Your task to perform on an android device: Search for bose soundlink mini on bestbuy, select the first entry, add it to the cart, then select checkout. Image 0: 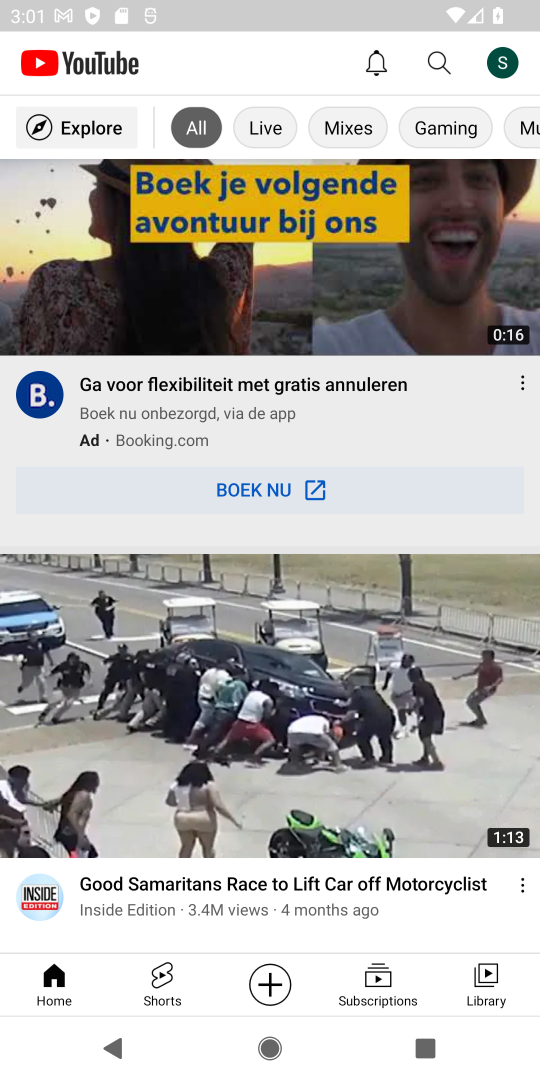
Step 0: press home button
Your task to perform on an android device: Search for bose soundlink mini on bestbuy, select the first entry, add it to the cart, then select checkout. Image 1: 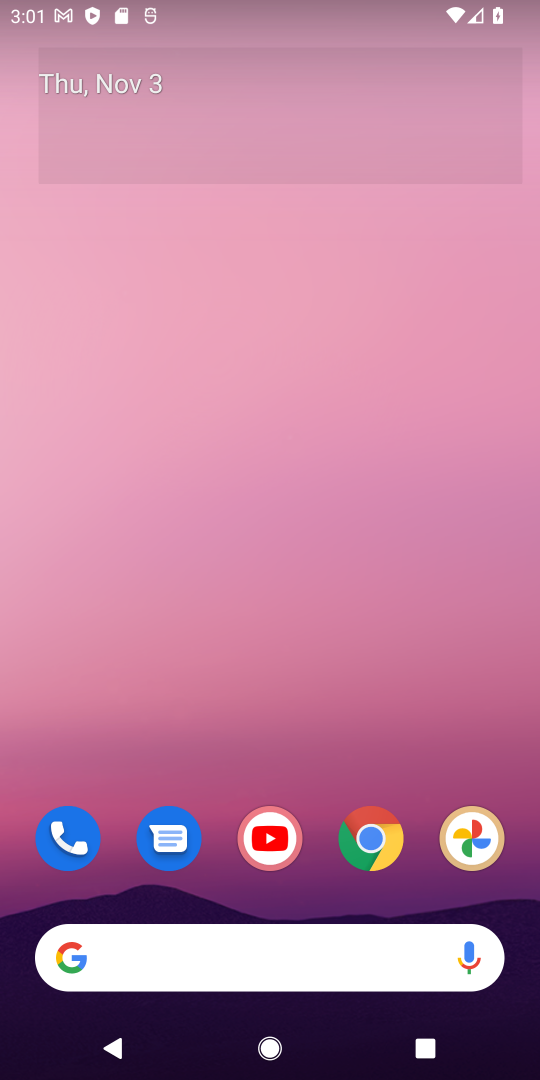
Step 1: drag from (306, 908) to (278, 207)
Your task to perform on an android device: Search for bose soundlink mini on bestbuy, select the first entry, add it to the cart, then select checkout. Image 2: 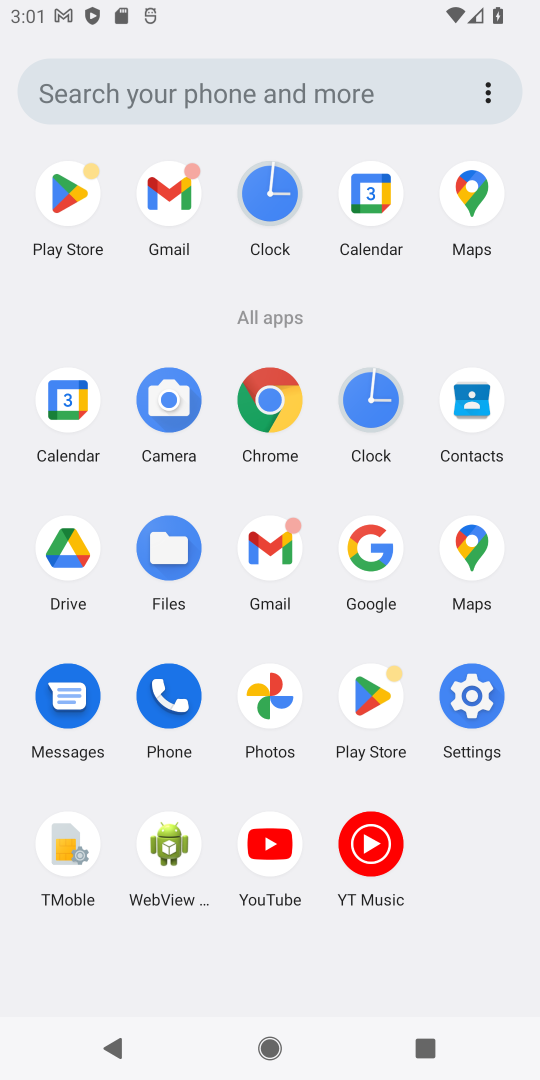
Step 2: click (269, 399)
Your task to perform on an android device: Search for bose soundlink mini on bestbuy, select the first entry, add it to the cart, then select checkout. Image 3: 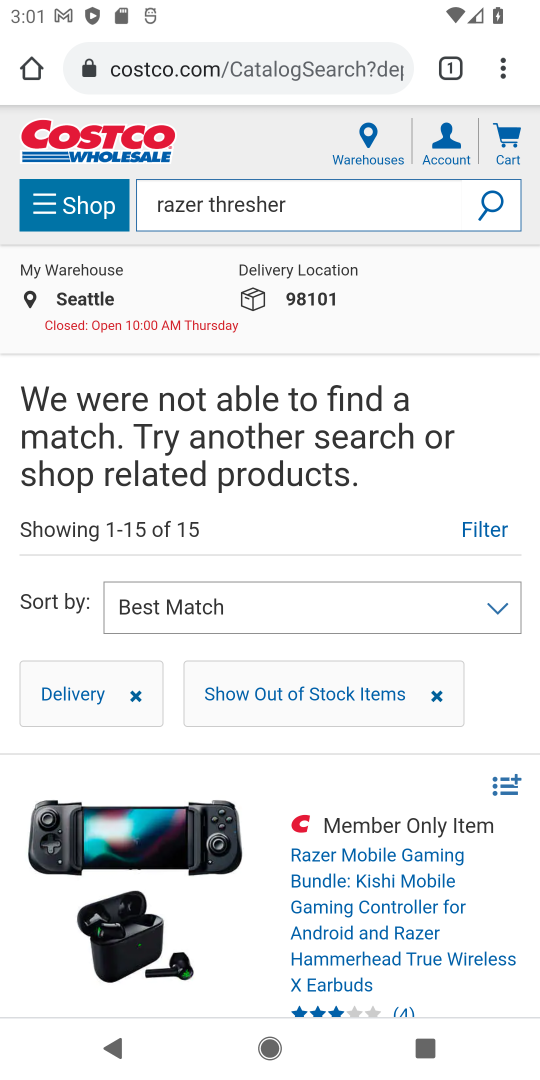
Step 3: click (273, 81)
Your task to perform on an android device: Search for bose soundlink mini on bestbuy, select the first entry, add it to the cart, then select checkout. Image 4: 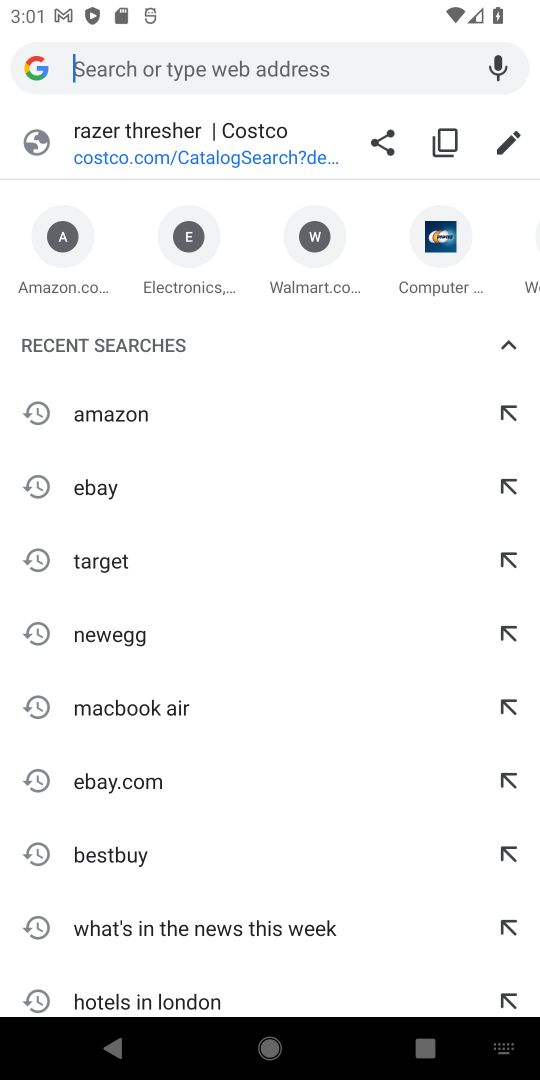
Step 4: type "bestbuy.com"
Your task to perform on an android device: Search for bose soundlink mini on bestbuy, select the first entry, add it to the cart, then select checkout. Image 5: 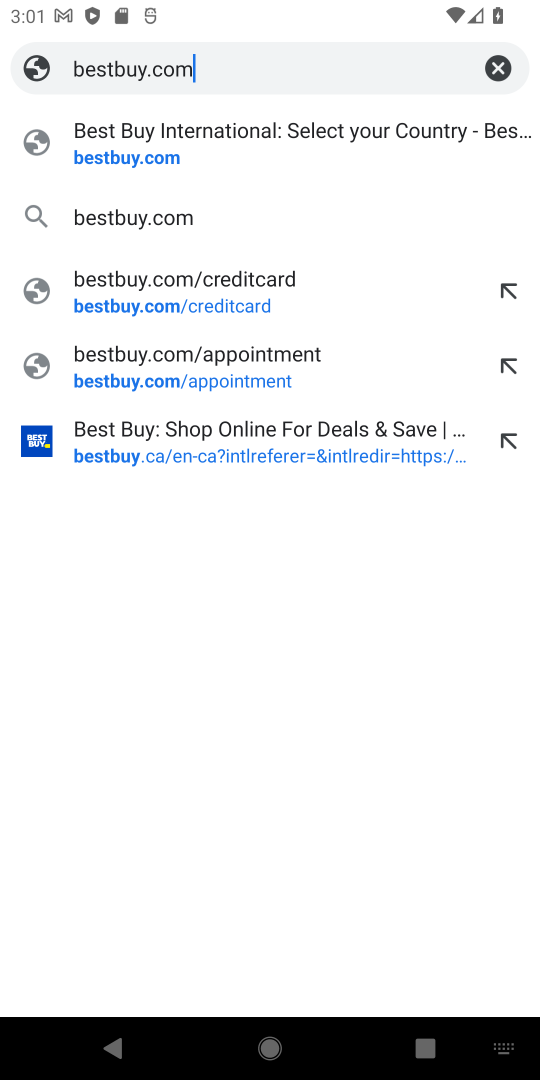
Step 5: press enter
Your task to perform on an android device: Search for bose soundlink mini on bestbuy, select the first entry, add it to the cart, then select checkout. Image 6: 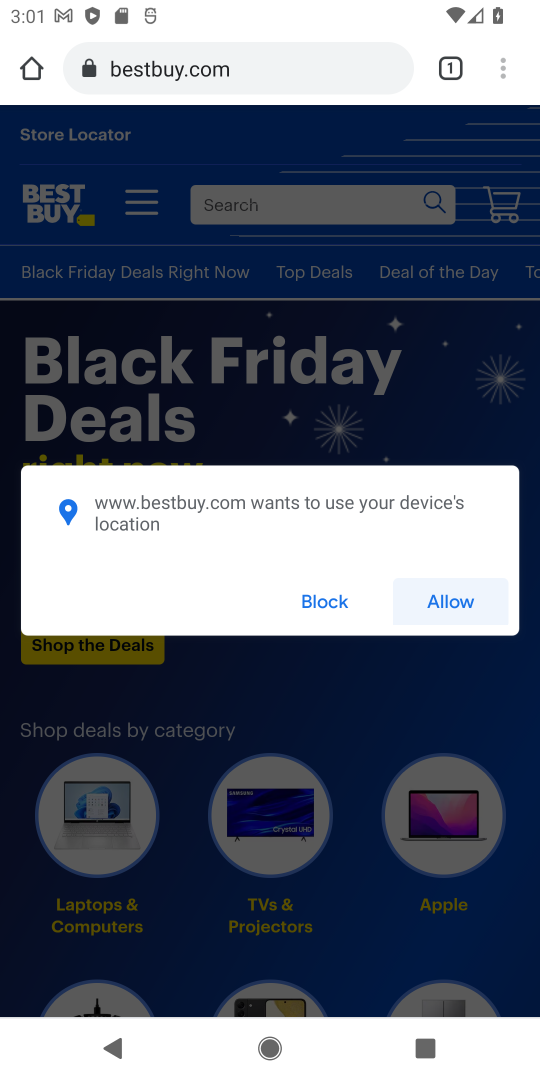
Step 6: click (314, 620)
Your task to perform on an android device: Search for bose soundlink mini on bestbuy, select the first entry, add it to the cart, then select checkout. Image 7: 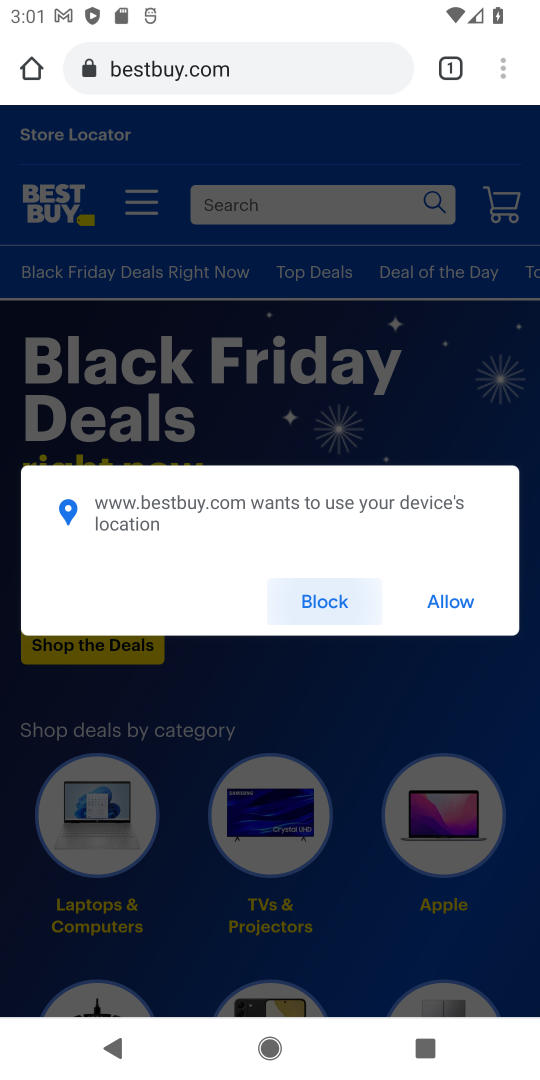
Step 7: click (317, 601)
Your task to perform on an android device: Search for bose soundlink mini on bestbuy, select the first entry, add it to the cart, then select checkout. Image 8: 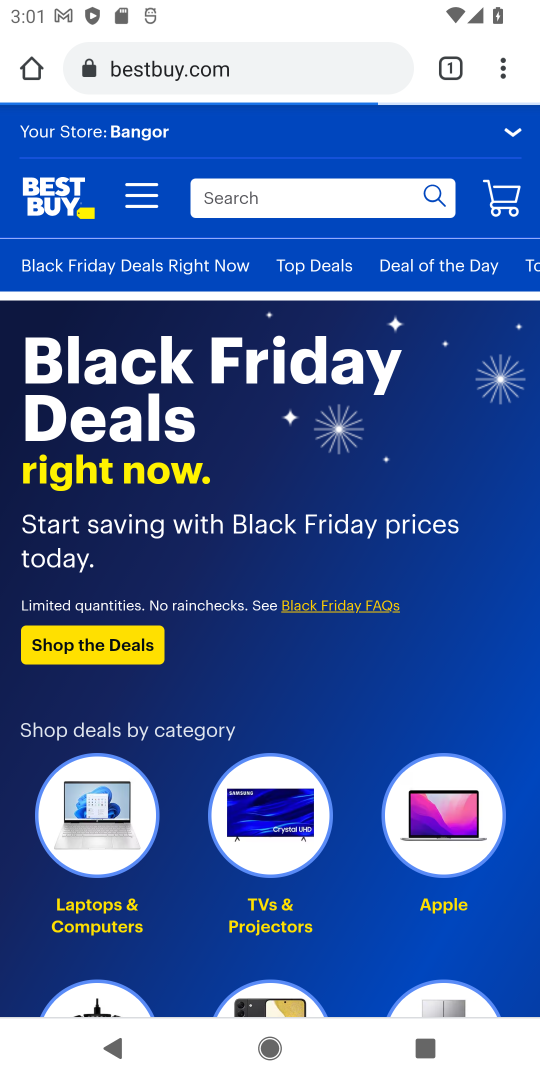
Step 8: click (271, 189)
Your task to perform on an android device: Search for bose soundlink mini on bestbuy, select the first entry, add it to the cart, then select checkout. Image 9: 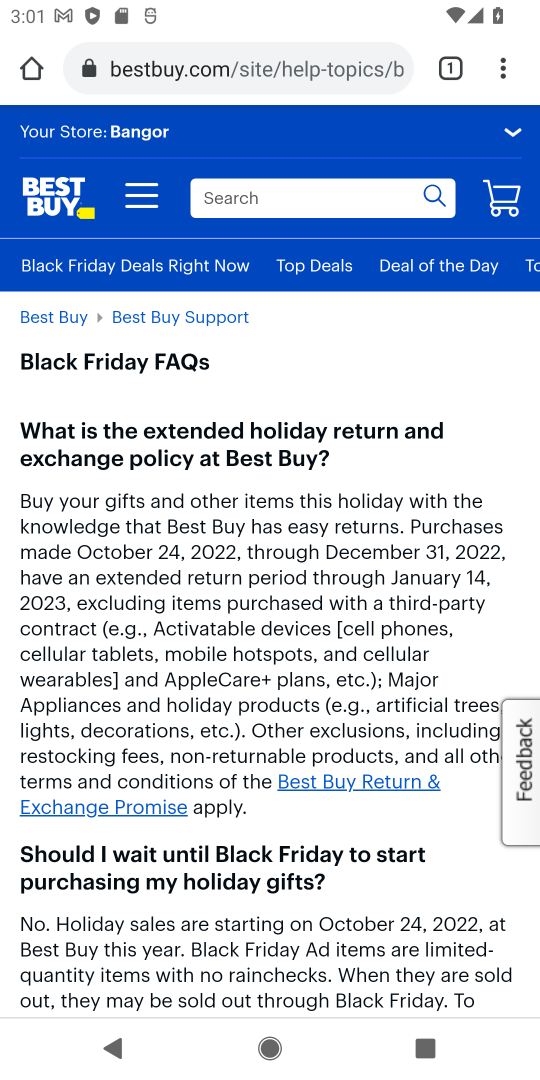
Step 9: click (271, 189)
Your task to perform on an android device: Search for bose soundlink mini on bestbuy, select the first entry, add it to the cart, then select checkout. Image 10: 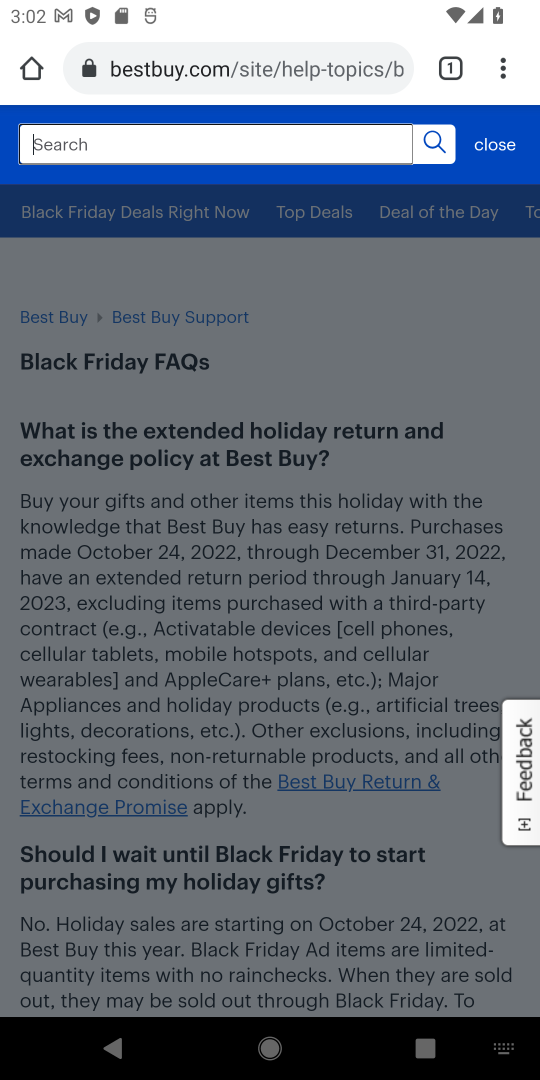
Step 10: type "soundlink mini"
Your task to perform on an android device: Search for bose soundlink mini on bestbuy, select the first entry, add it to the cart, then select checkout. Image 11: 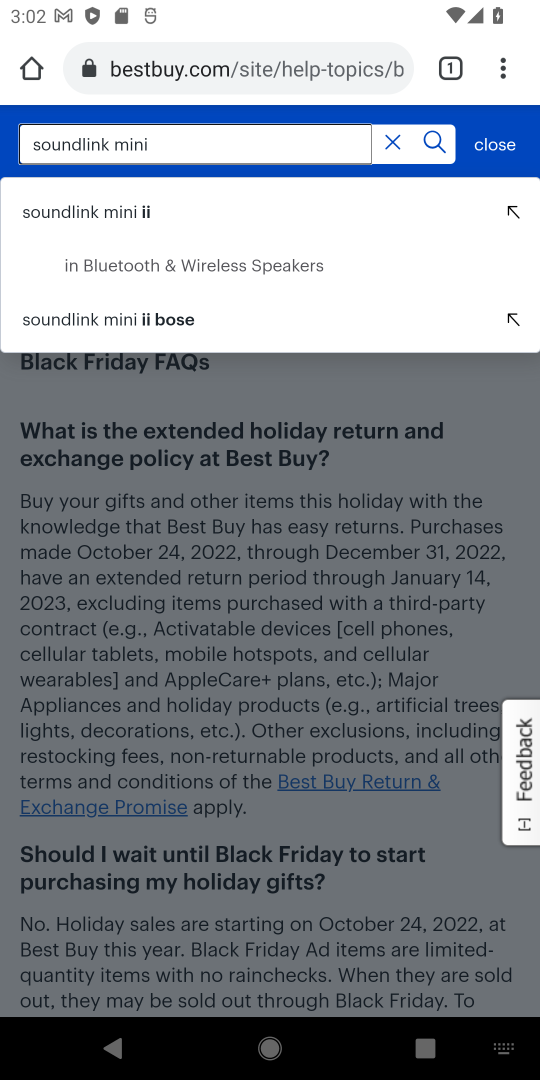
Step 11: press enter
Your task to perform on an android device: Search for bose soundlink mini on bestbuy, select the first entry, add it to the cart, then select checkout. Image 12: 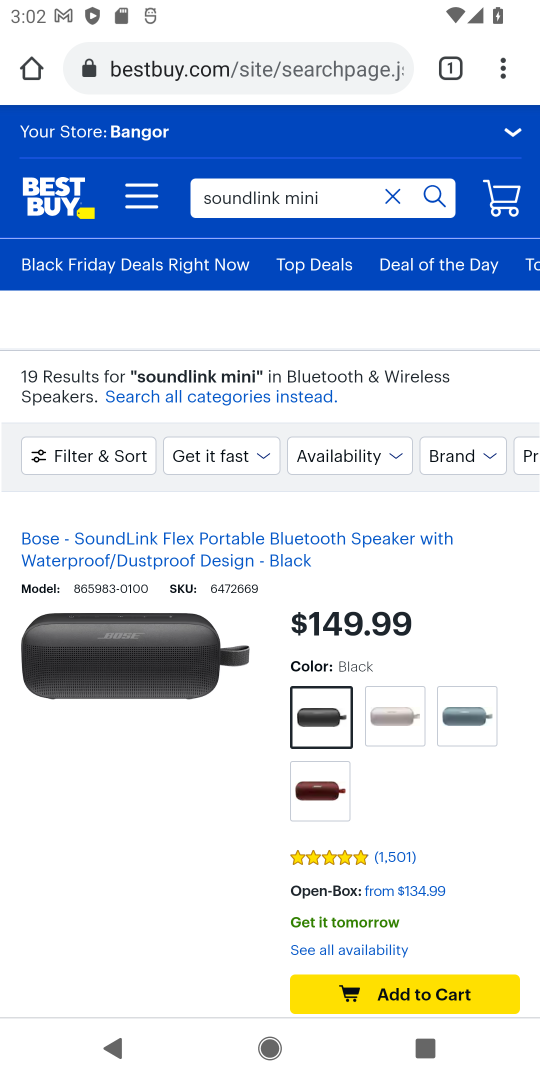
Step 12: task complete